Your task to perform on an android device: Go to calendar. Show me events next week Image 0: 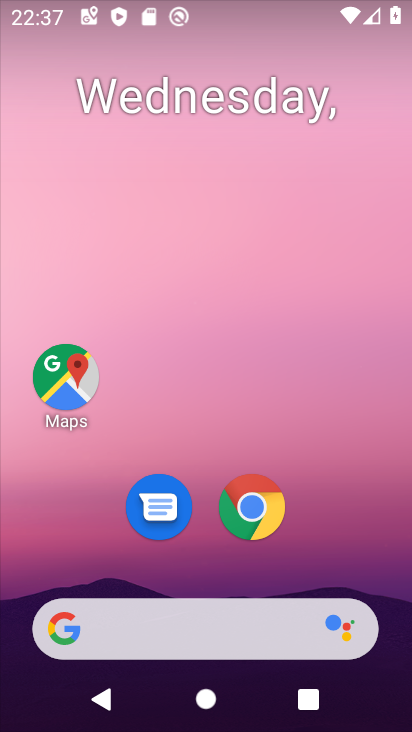
Step 0: drag from (357, 568) to (404, 190)
Your task to perform on an android device: Go to calendar. Show me events next week Image 1: 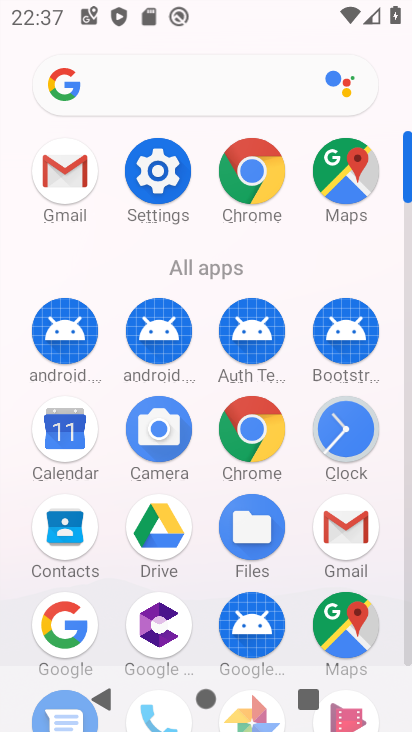
Step 1: click (78, 435)
Your task to perform on an android device: Go to calendar. Show me events next week Image 2: 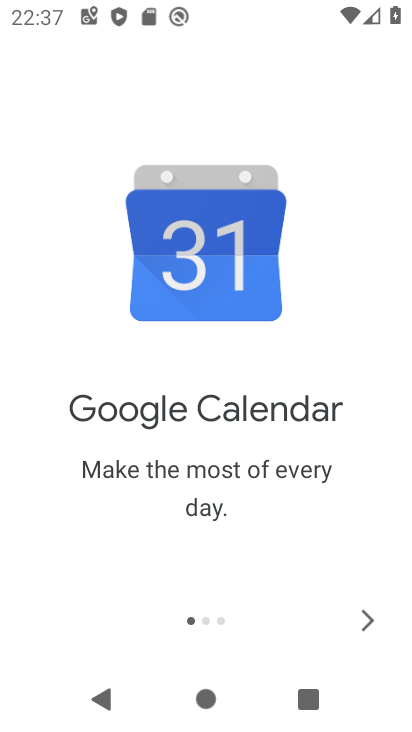
Step 2: click (356, 620)
Your task to perform on an android device: Go to calendar. Show me events next week Image 3: 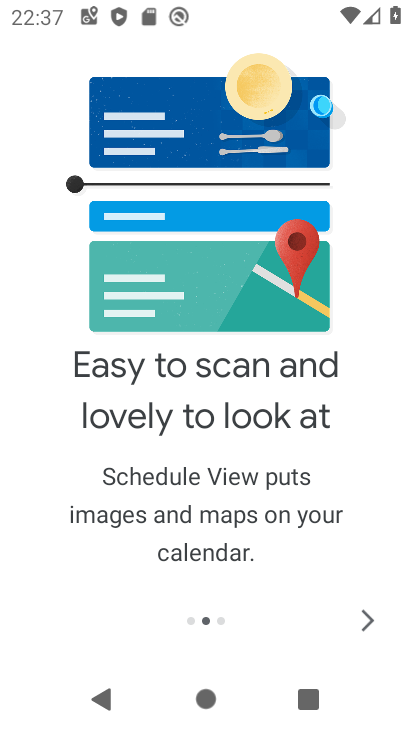
Step 3: click (357, 617)
Your task to perform on an android device: Go to calendar. Show me events next week Image 4: 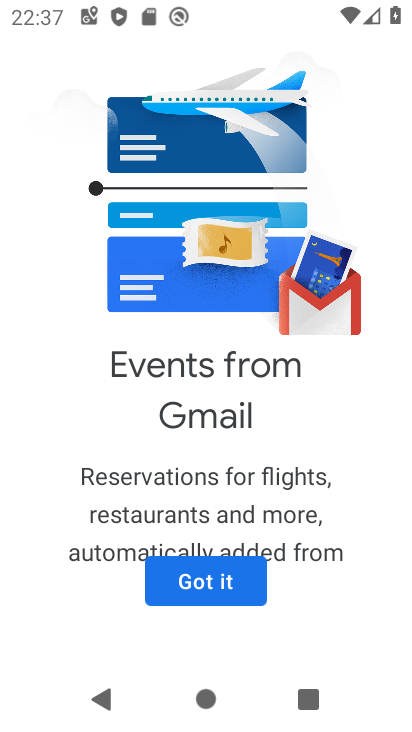
Step 4: click (198, 587)
Your task to perform on an android device: Go to calendar. Show me events next week Image 5: 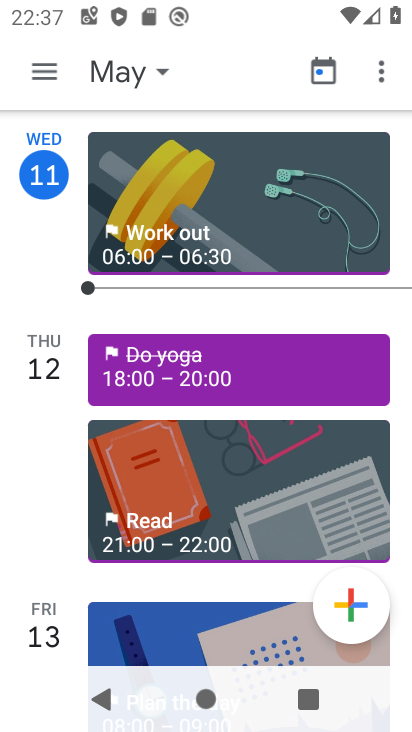
Step 5: click (43, 84)
Your task to perform on an android device: Go to calendar. Show me events next week Image 6: 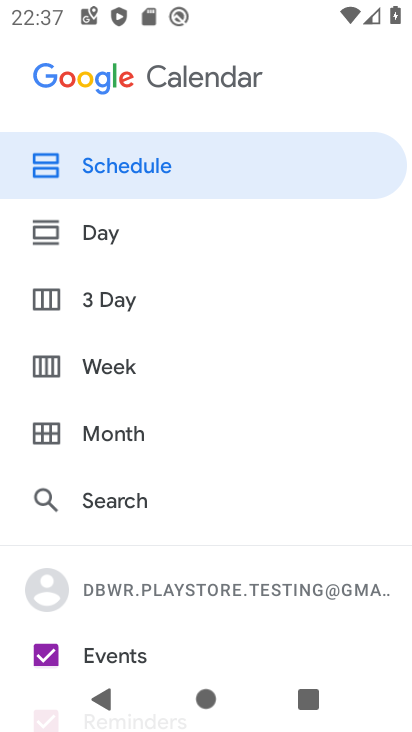
Step 6: click (130, 363)
Your task to perform on an android device: Go to calendar. Show me events next week Image 7: 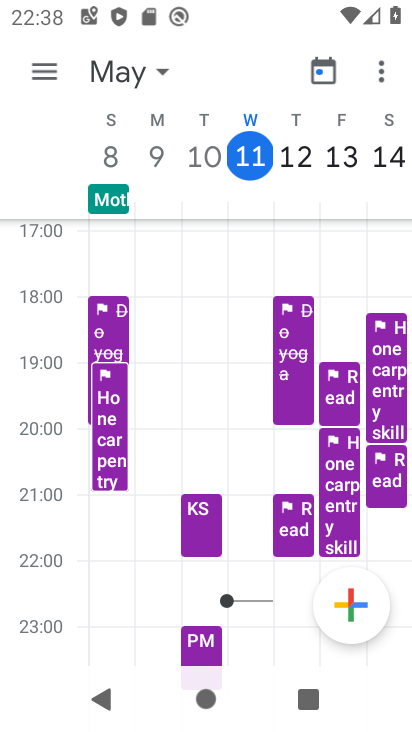
Step 7: task complete